Your task to perform on an android device: set the timer Image 0: 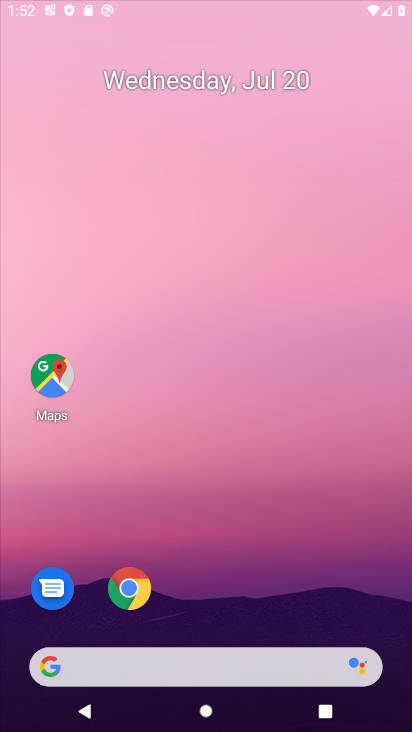
Step 0: drag from (377, 615) to (182, 52)
Your task to perform on an android device: set the timer Image 1: 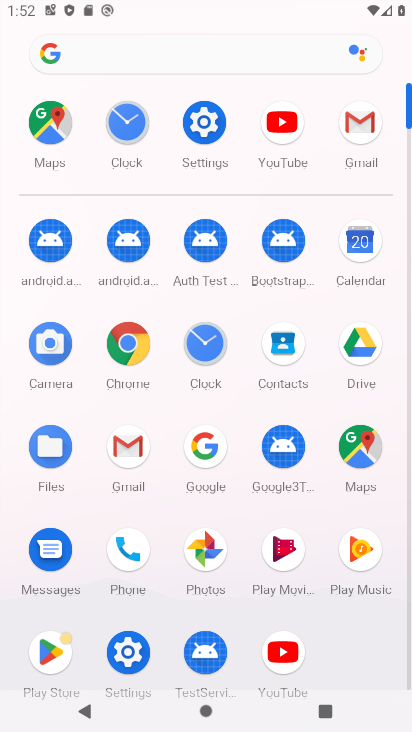
Step 1: click (206, 334)
Your task to perform on an android device: set the timer Image 2: 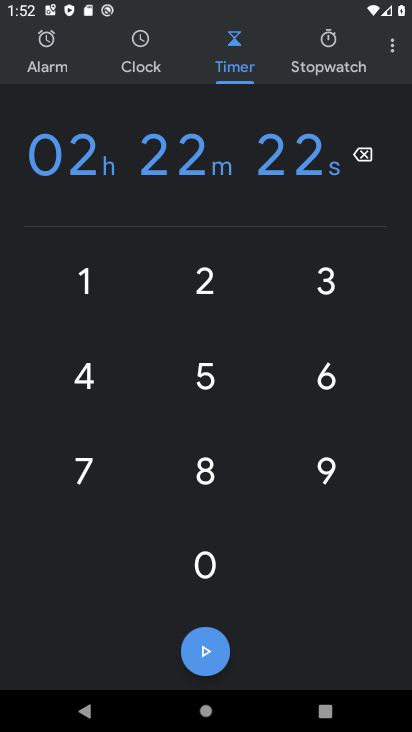
Step 2: click (85, 278)
Your task to perform on an android device: set the timer Image 3: 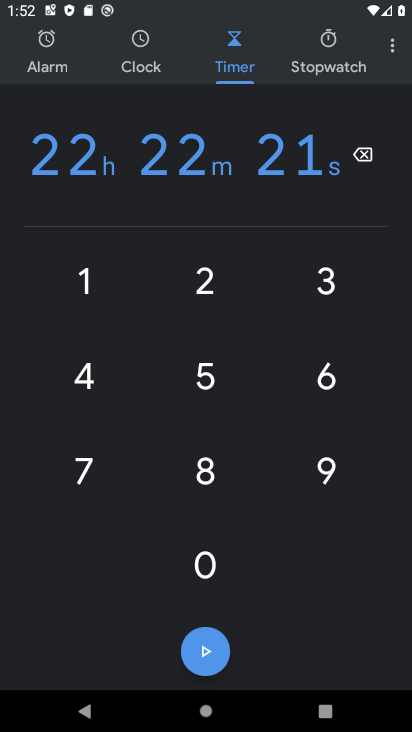
Step 3: click (204, 288)
Your task to perform on an android device: set the timer Image 4: 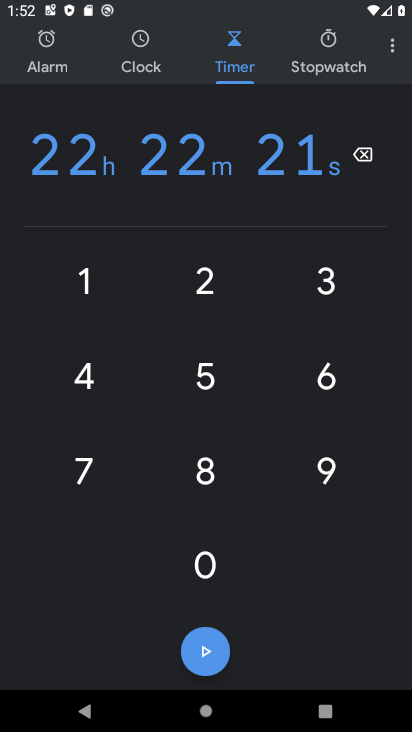
Step 4: click (102, 273)
Your task to perform on an android device: set the timer Image 5: 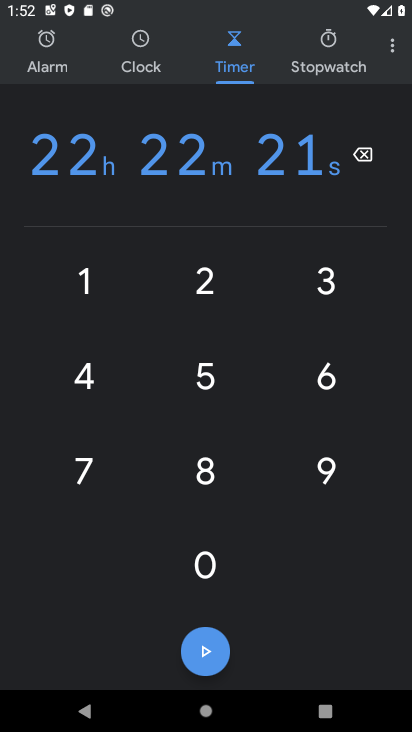
Step 5: click (92, 276)
Your task to perform on an android device: set the timer Image 6: 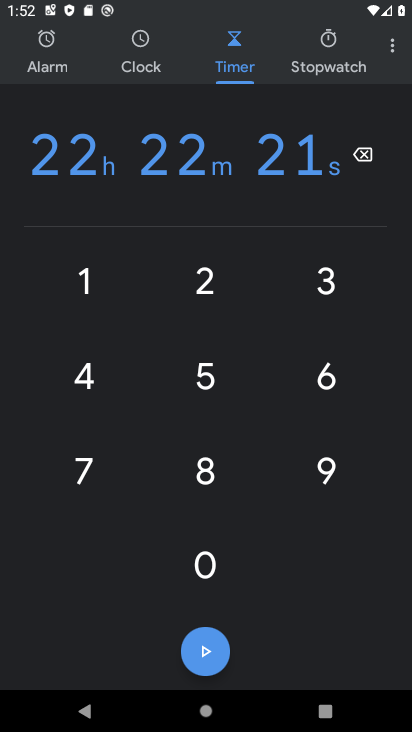
Step 6: task complete